Your task to perform on an android device: See recent photos Image 0: 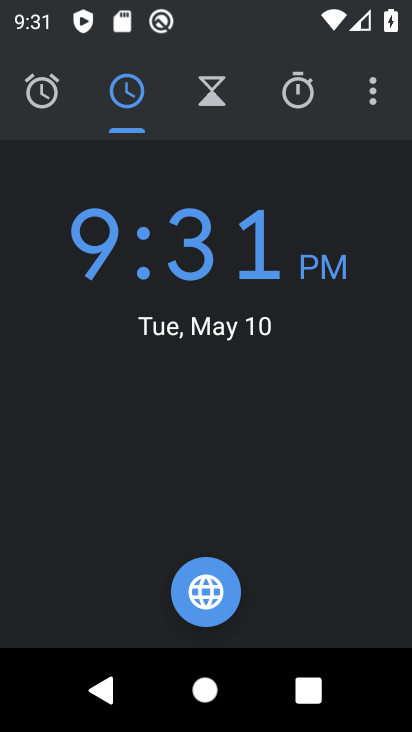
Step 0: press home button
Your task to perform on an android device: See recent photos Image 1: 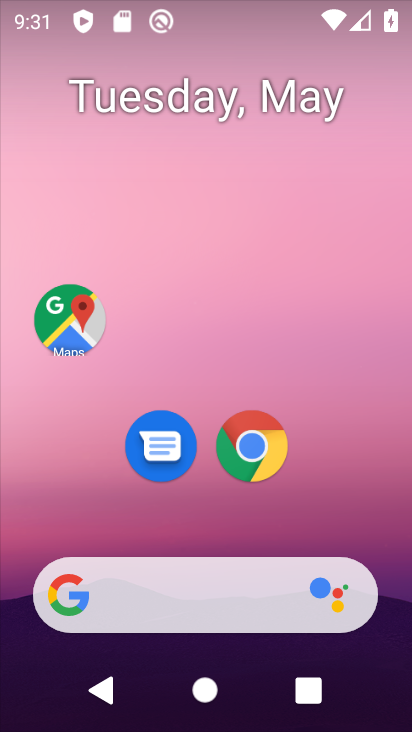
Step 1: drag from (203, 504) to (247, 0)
Your task to perform on an android device: See recent photos Image 2: 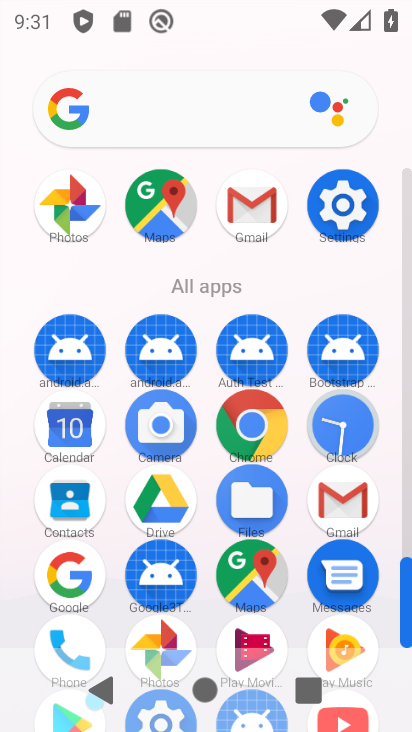
Step 2: click (156, 619)
Your task to perform on an android device: See recent photos Image 3: 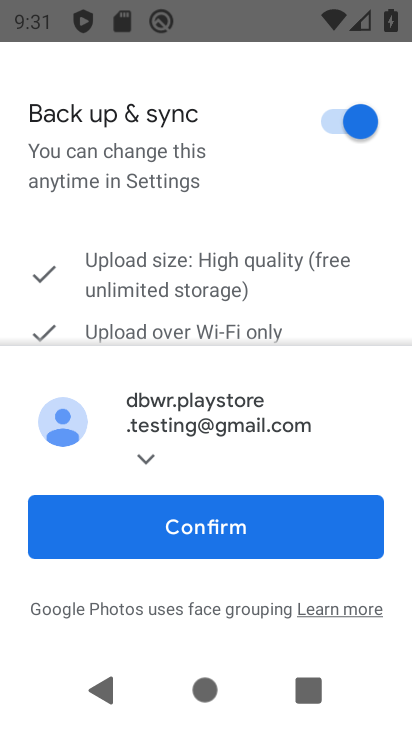
Step 3: click (206, 532)
Your task to perform on an android device: See recent photos Image 4: 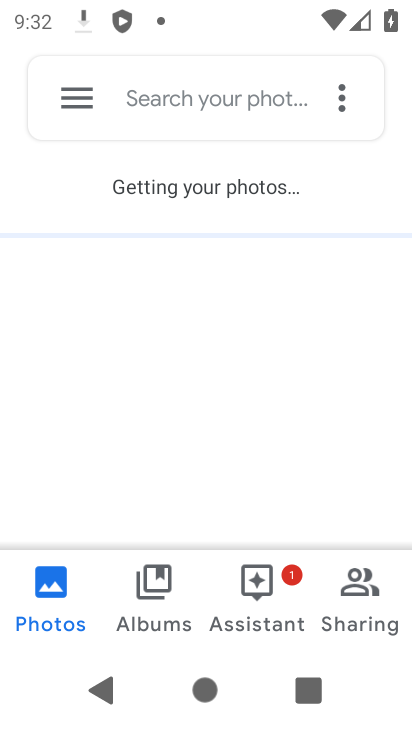
Step 4: task complete